Your task to perform on an android device: delete a single message in the gmail app Image 0: 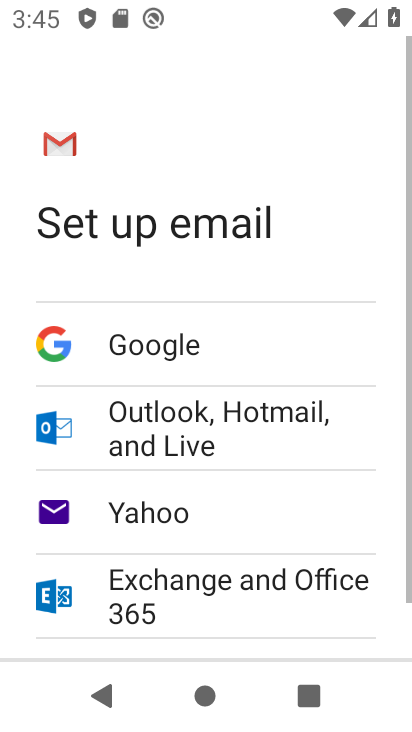
Step 0: press home button
Your task to perform on an android device: delete a single message in the gmail app Image 1: 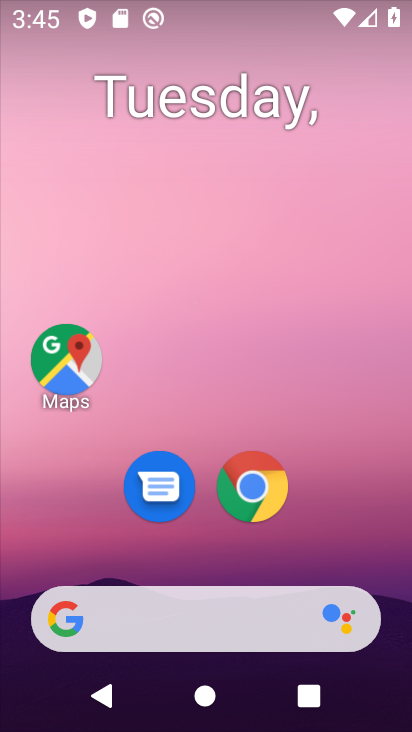
Step 1: drag from (353, 529) to (357, 304)
Your task to perform on an android device: delete a single message in the gmail app Image 2: 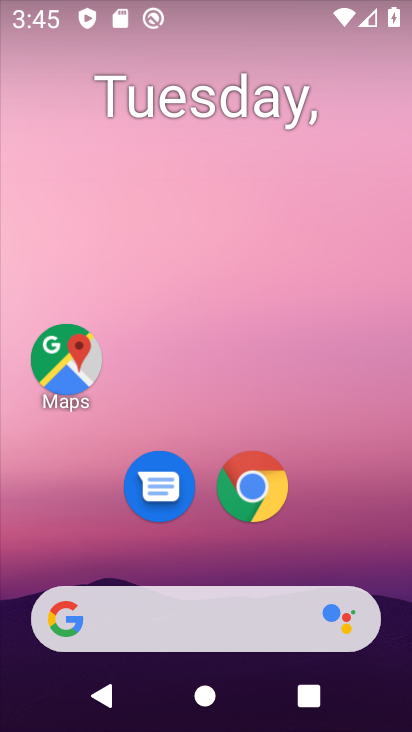
Step 2: drag from (355, 507) to (335, 265)
Your task to perform on an android device: delete a single message in the gmail app Image 3: 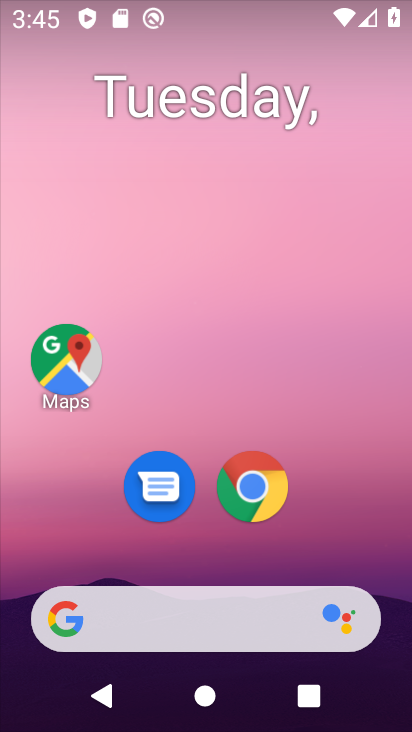
Step 3: drag from (334, 501) to (355, 66)
Your task to perform on an android device: delete a single message in the gmail app Image 4: 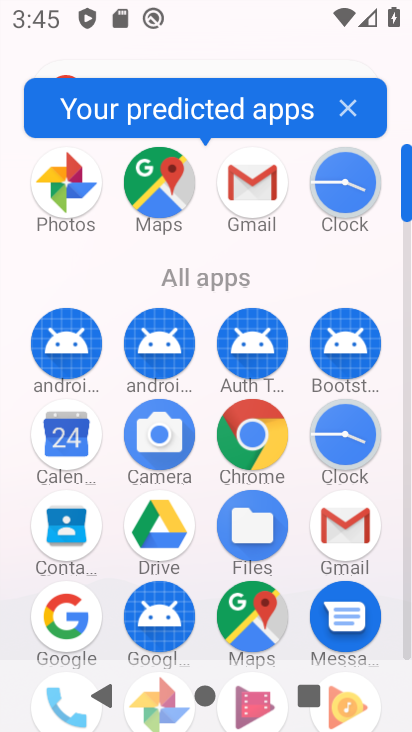
Step 4: click (232, 205)
Your task to perform on an android device: delete a single message in the gmail app Image 5: 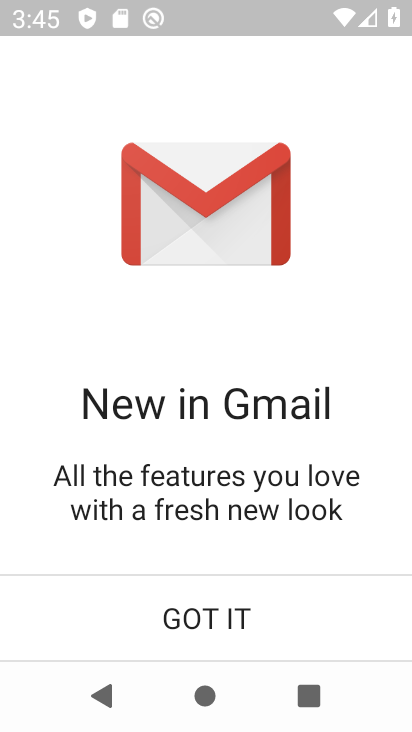
Step 5: click (171, 634)
Your task to perform on an android device: delete a single message in the gmail app Image 6: 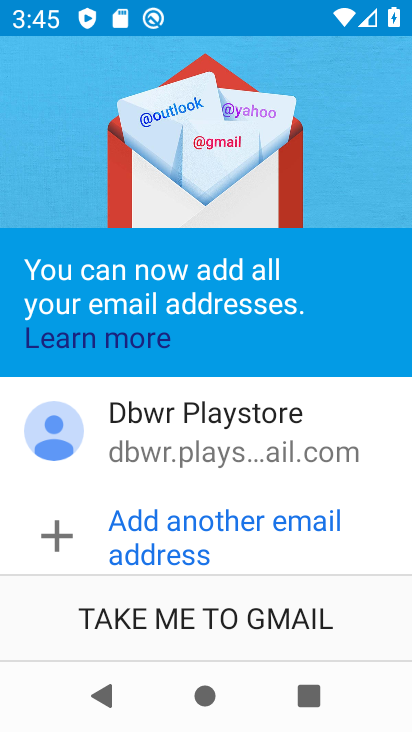
Step 6: click (178, 622)
Your task to perform on an android device: delete a single message in the gmail app Image 7: 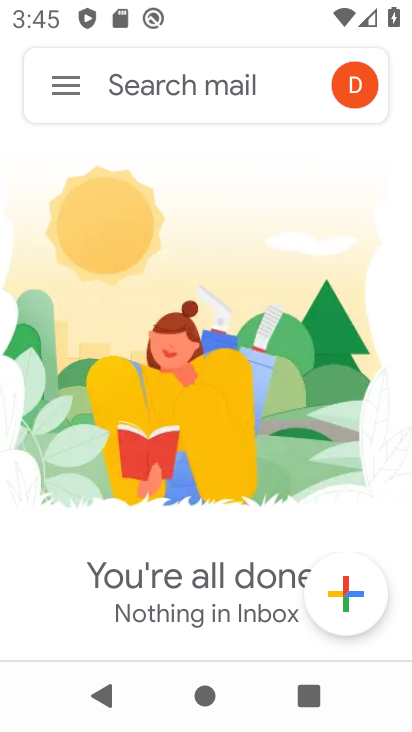
Step 7: click (59, 82)
Your task to perform on an android device: delete a single message in the gmail app Image 8: 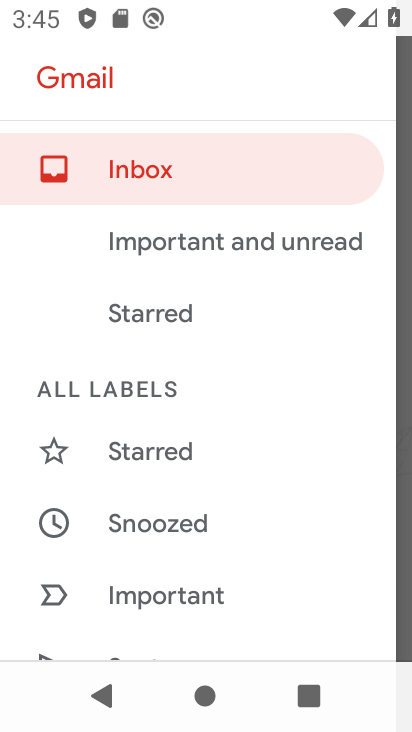
Step 8: drag from (191, 382) to (190, 121)
Your task to perform on an android device: delete a single message in the gmail app Image 9: 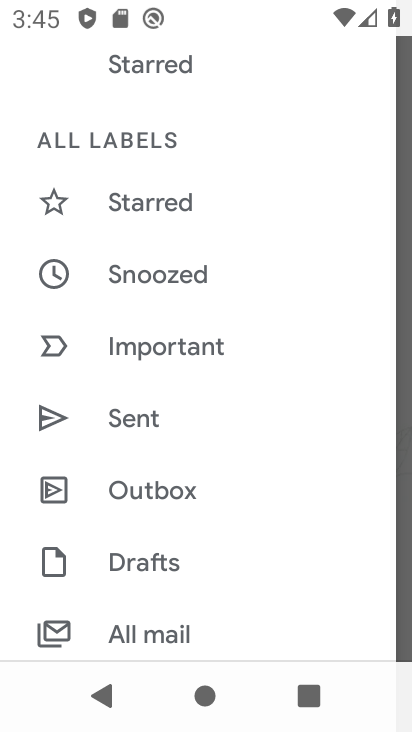
Step 9: drag from (175, 521) to (173, 244)
Your task to perform on an android device: delete a single message in the gmail app Image 10: 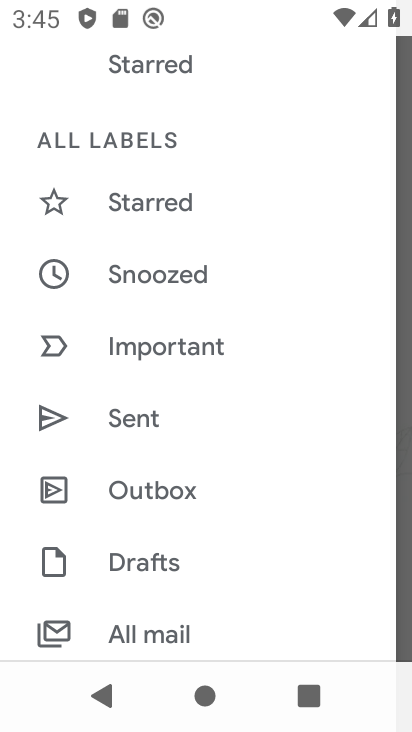
Step 10: click (146, 619)
Your task to perform on an android device: delete a single message in the gmail app Image 11: 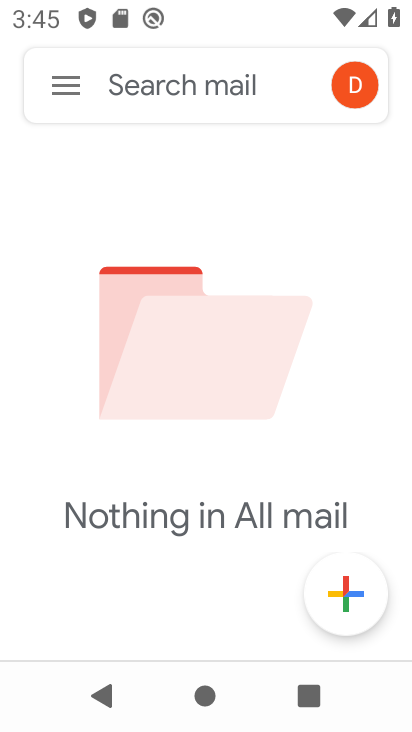
Step 11: task complete